Your task to perform on an android device: delete browsing data in the chrome app Image 0: 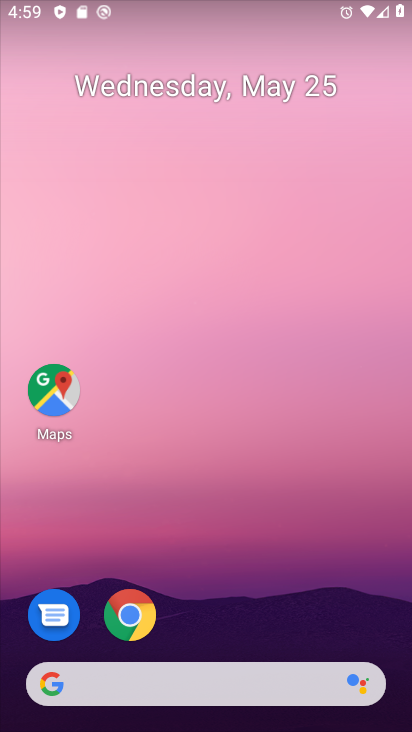
Step 0: press home button
Your task to perform on an android device: delete browsing data in the chrome app Image 1: 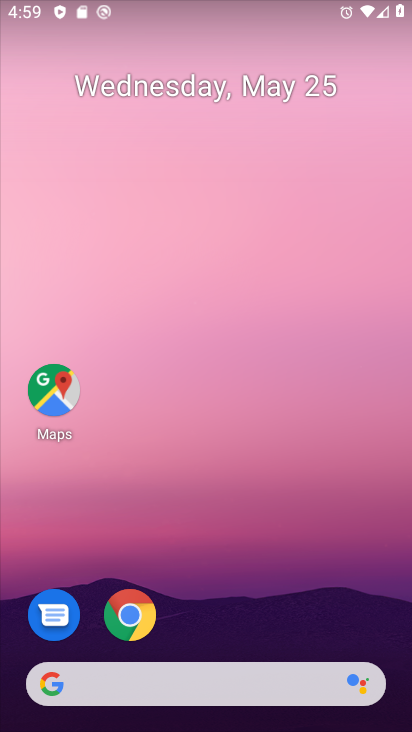
Step 1: click (151, 628)
Your task to perform on an android device: delete browsing data in the chrome app Image 2: 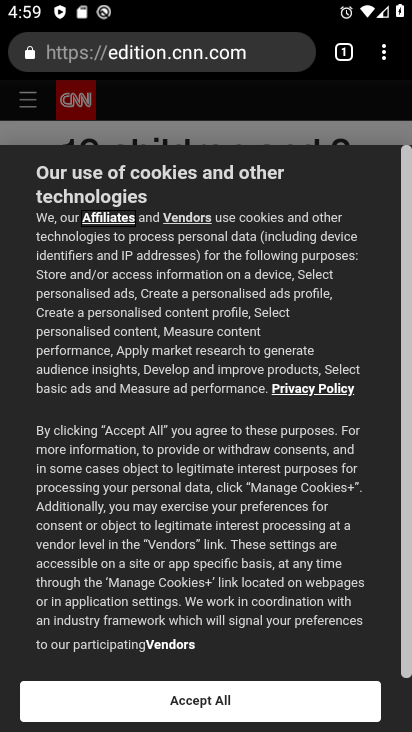
Step 2: drag from (376, 57) to (198, 588)
Your task to perform on an android device: delete browsing data in the chrome app Image 3: 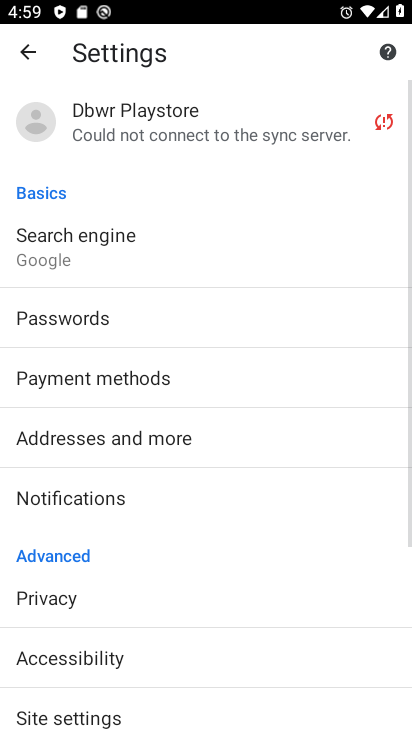
Step 3: drag from (146, 657) to (164, 446)
Your task to perform on an android device: delete browsing data in the chrome app Image 4: 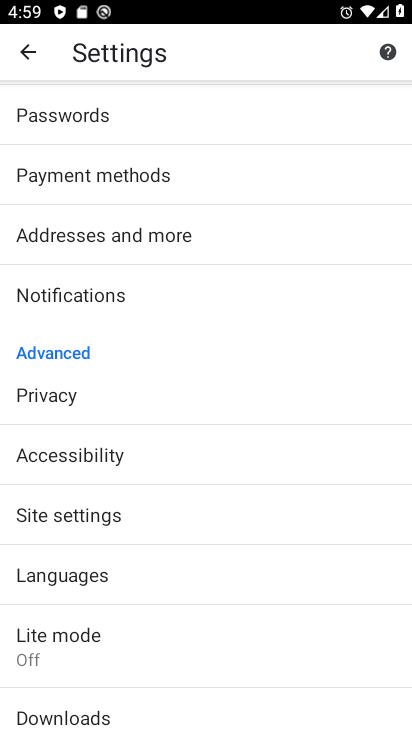
Step 4: click (112, 402)
Your task to perform on an android device: delete browsing data in the chrome app Image 5: 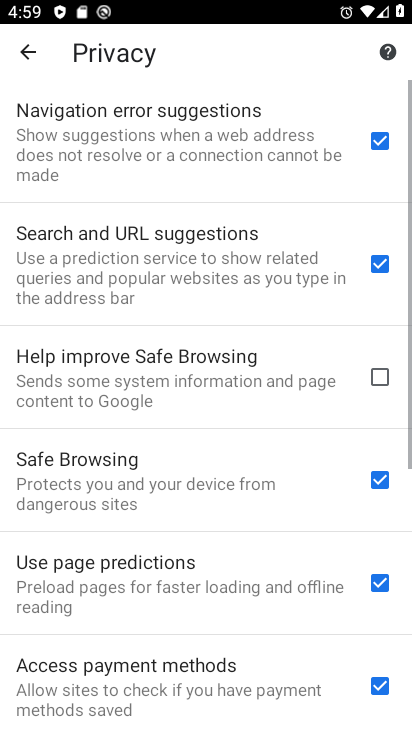
Step 5: drag from (216, 656) to (269, 117)
Your task to perform on an android device: delete browsing data in the chrome app Image 6: 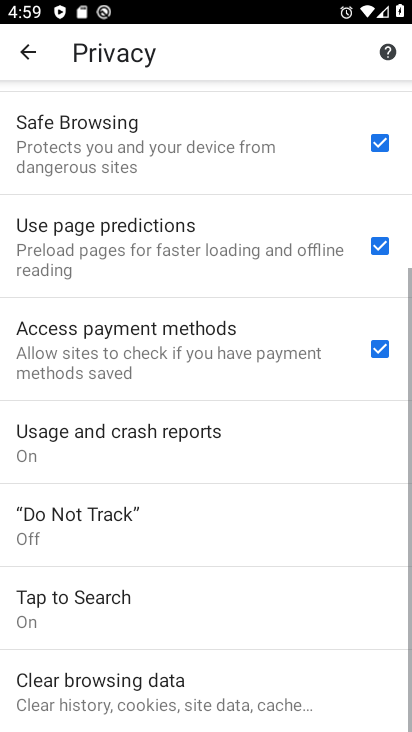
Step 6: click (163, 664)
Your task to perform on an android device: delete browsing data in the chrome app Image 7: 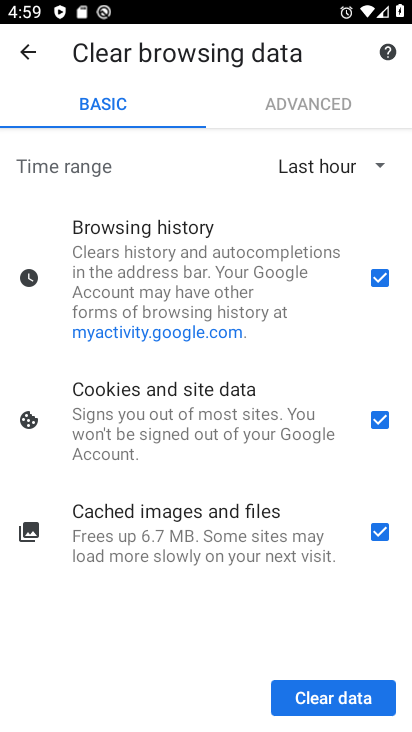
Step 7: click (326, 696)
Your task to perform on an android device: delete browsing data in the chrome app Image 8: 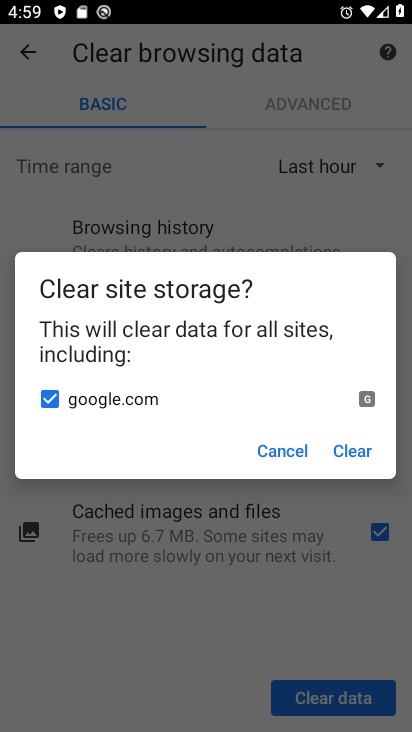
Step 8: click (353, 440)
Your task to perform on an android device: delete browsing data in the chrome app Image 9: 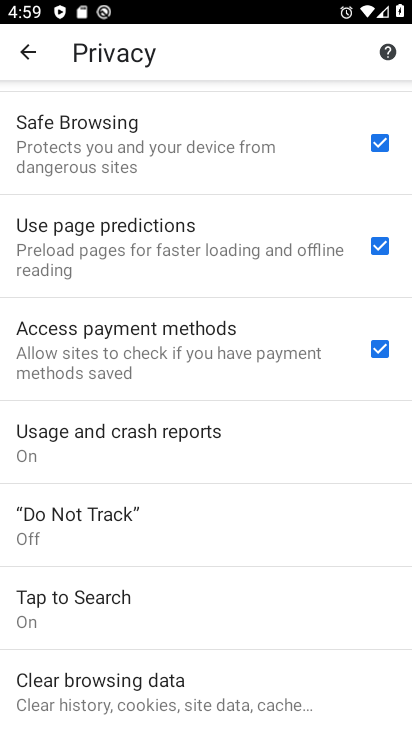
Step 9: task complete